Your task to perform on an android device: Go to sound settings Image 0: 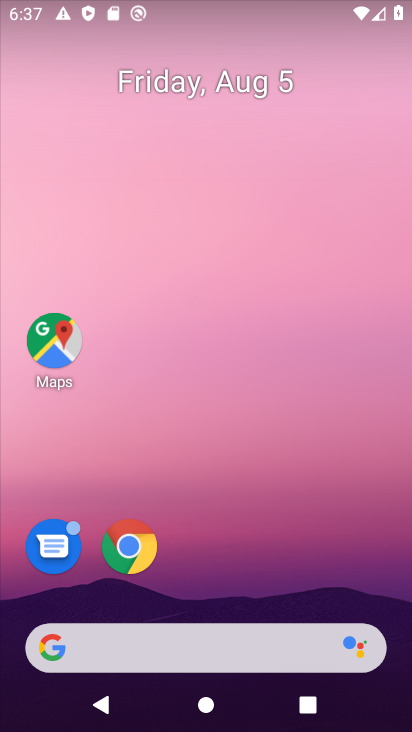
Step 0: drag from (197, 548) to (244, 66)
Your task to perform on an android device: Go to sound settings Image 1: 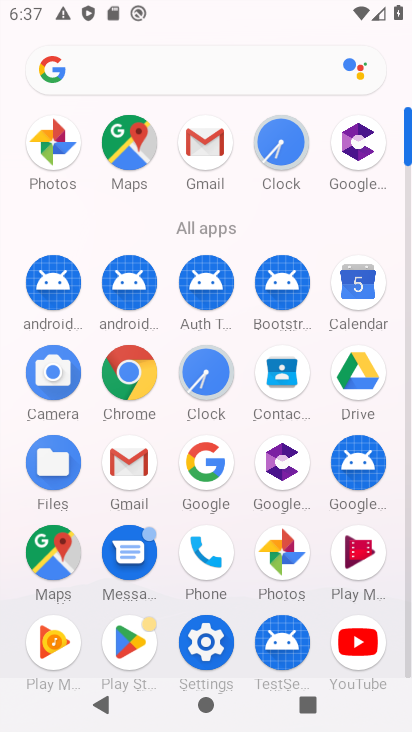
Step 1: click (190, 636)
Your task to perform on an android device: Go to sound settings Image 2: 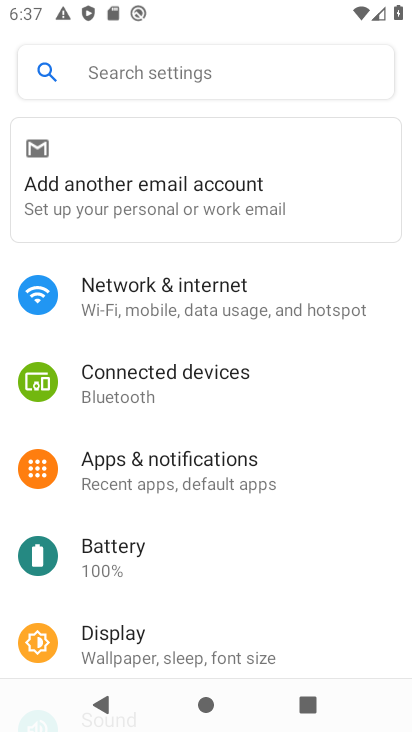
Step 2: drag from (154, 585) to (222, 140)
Your task to perform on an android device: Go to sound settings Image 3: 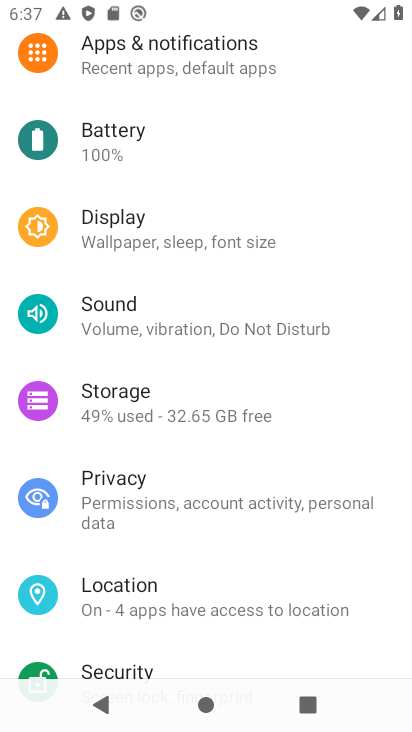
Step 3: click (141, 314)
Your task to perform on an android device: Go to sound settings Image 4: 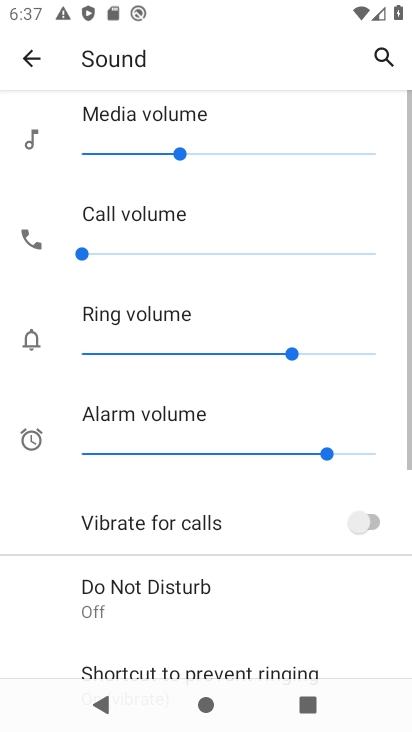
Step 4: drag from (198, 575) to (244, 224)
Your task to perform on an android device: Go to sound settings Image 5: 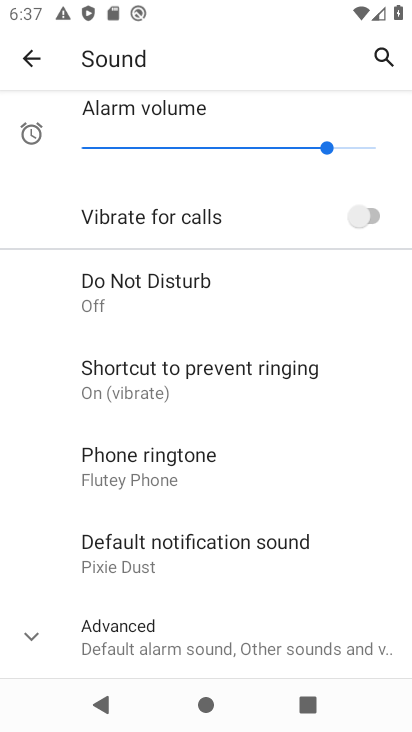
Step 5: drag from (206, 573) to (244, 189)
Your task to perform on an android device: Go to sound settings Image 6: 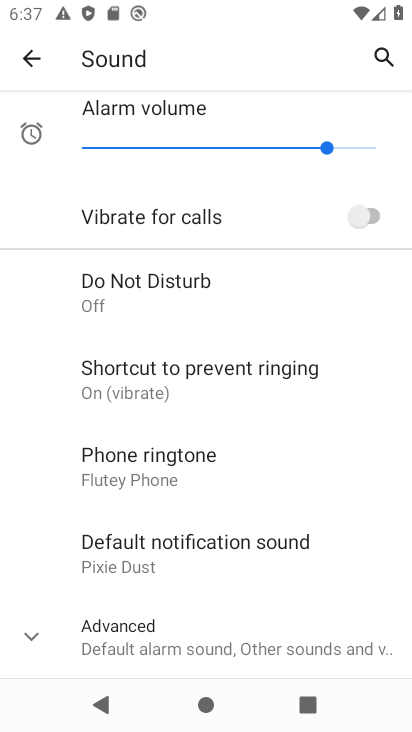
Step 6: drag from (223, 624) to (237, 295)
Your task to perform on an android device: Go to sound settings Image 7: 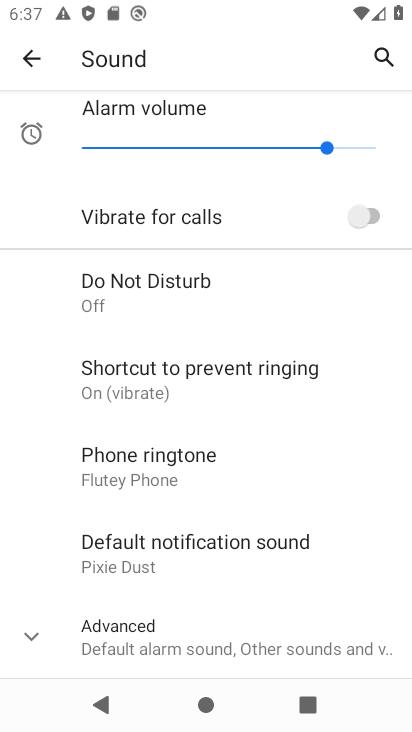
Step 7: click (166, 649)
Your task to perform on an android device: Go to sound settings Image 8: 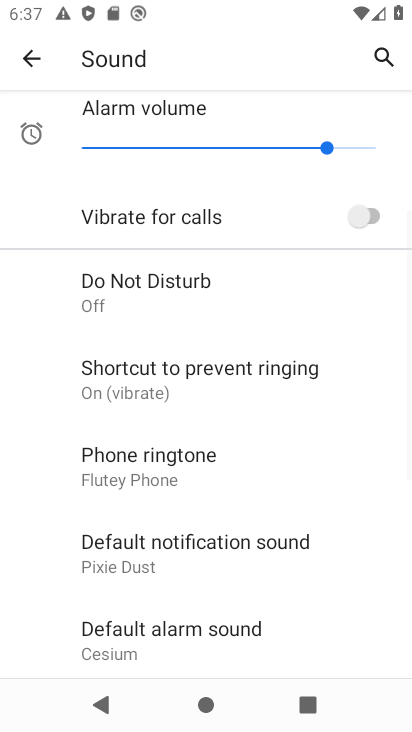
Step 8: task complete